Your task to perform on an android device: clear history in the chrome app Image 0: 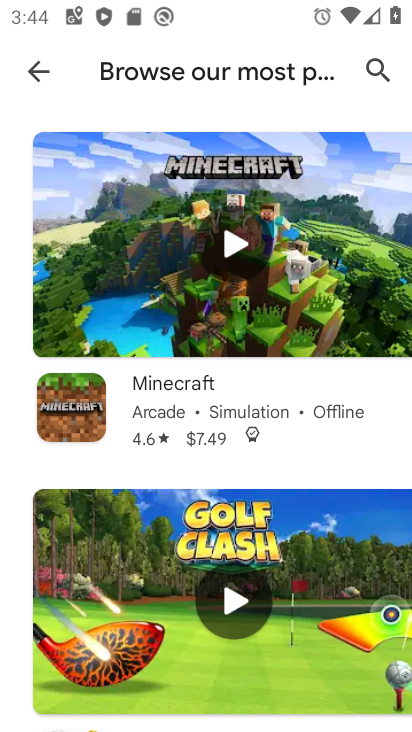
Step 0: press home button
Your task to perform on an android device: clear history in the chrome app Image 1: 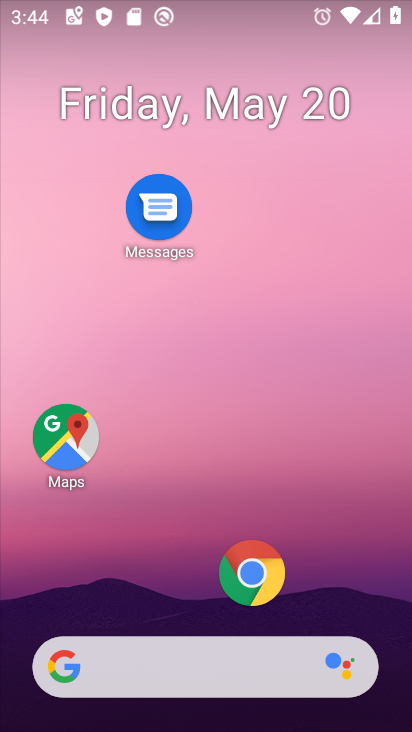
Step 1: click (277, 575)
Your task to perform on an android device: clear history in the chrome app Image 2: 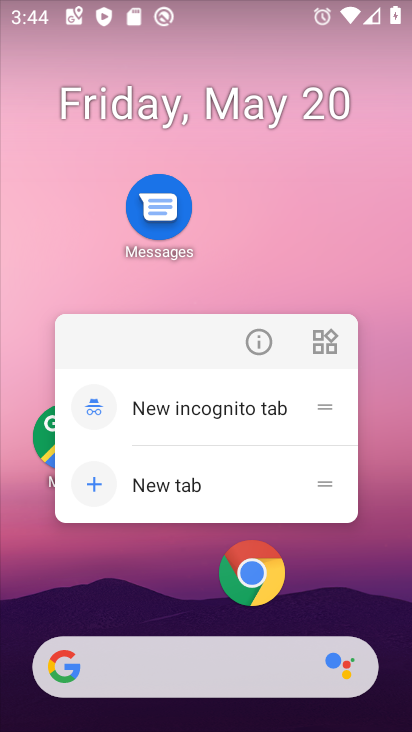
Step 2: click (254, 571)
Your task to perform on an android device: clear history in the chrome app Image 3: 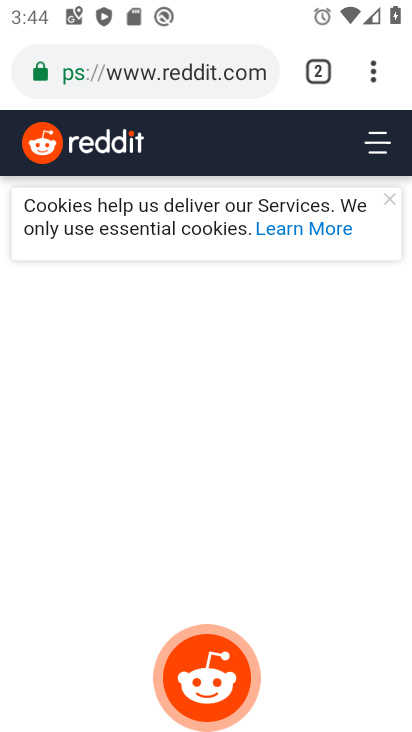
Step 3: click (361, 73)
Your task to perform on an android device: clear history in the chrome app Image 4: 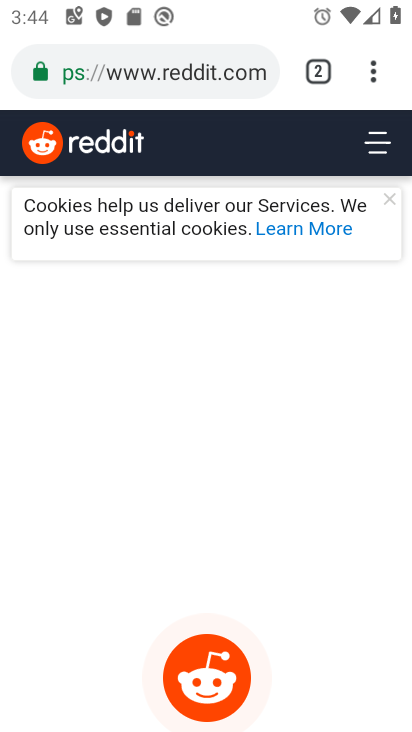
Step 4: click (382, 77)
Your task to perform on an android device: clear history in the chrome app Image 5: 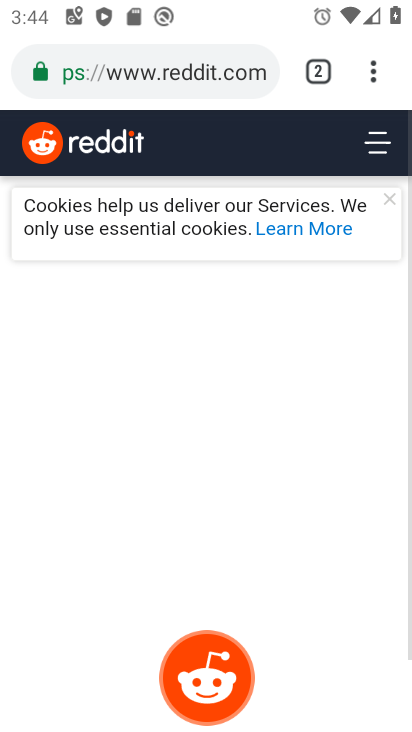
Step 5: drag from (382, 77) to (107, 418)
Your task to perform on an android device: clear history in the chrome app Image 6: 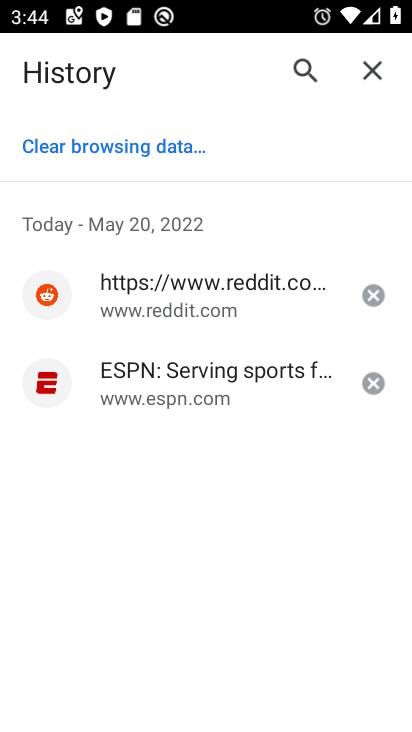
Step 6: click (113, 120)
Your task to perform on an android device: clear history in the chrome app Image 7: 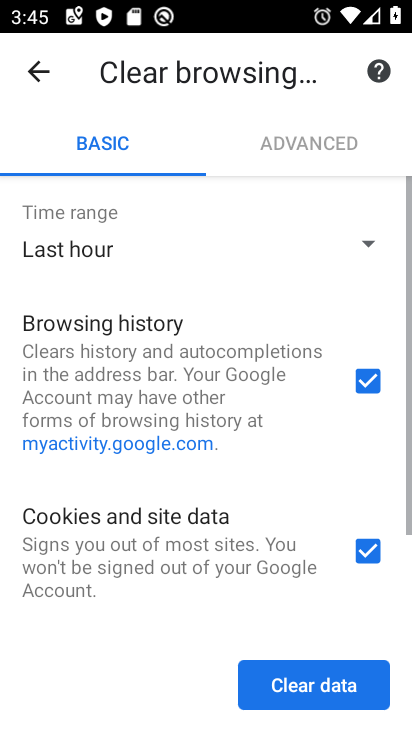
Step 7: click (279, 683)
Your task to perform on an android device: clear history in the chrome app Image 8: 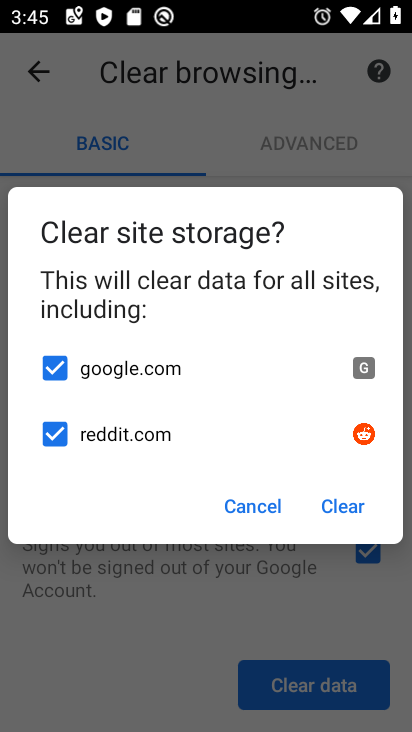
Step 8: click (339, 507)
Your task to perform on an android device: clear history in the chrome app Image 9: 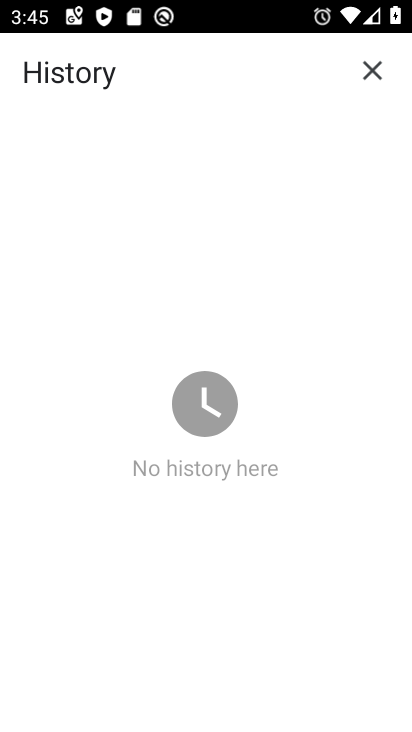
Step 9: task complete